Your task to perform on an android device: toggle show notifications on the lock screen Image 0: 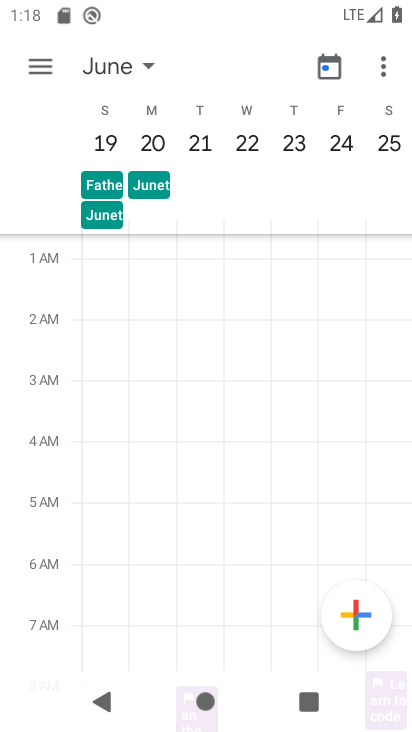
Step 0: press home button
Your task to perform on an android device: toggle show notifications on the lock screen Image 1: 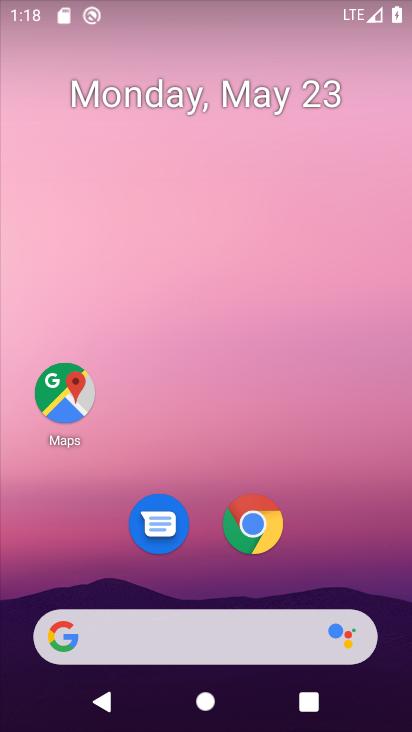
Step 1: drag from (290, 441) to (246, 8)
Your task to perform on an android device: toggle show notifications on the lock screen Image 2: 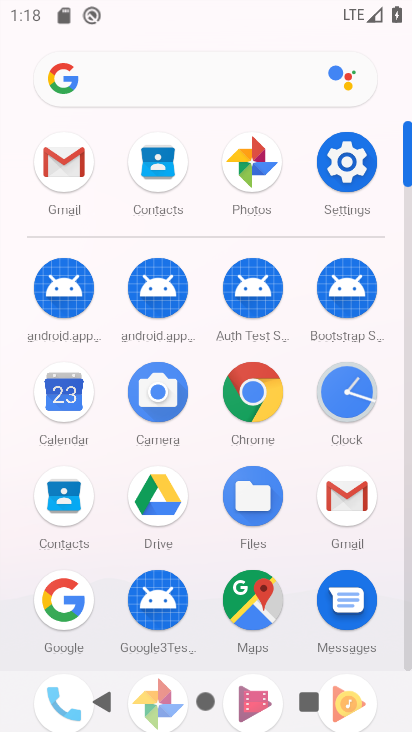
Step 2: click (323, 162)
Your task to perform on an android device: toggle show notifications on the lock screen Image 3: 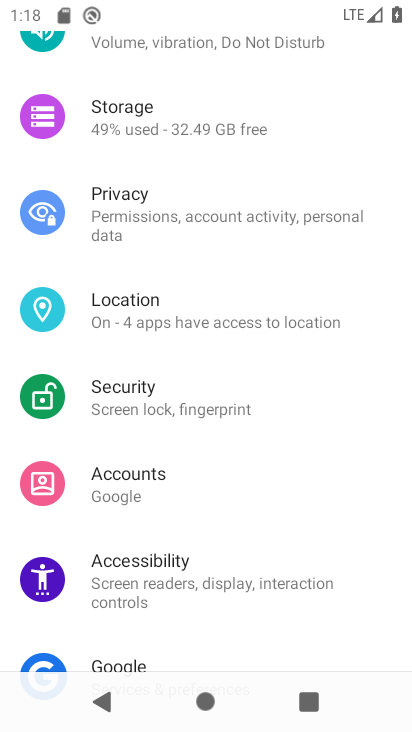
Step 3: drag from (210, 155) to (198, 584)
Your task to perform on an android device: toggle show notifications on the lock screen Image 4: 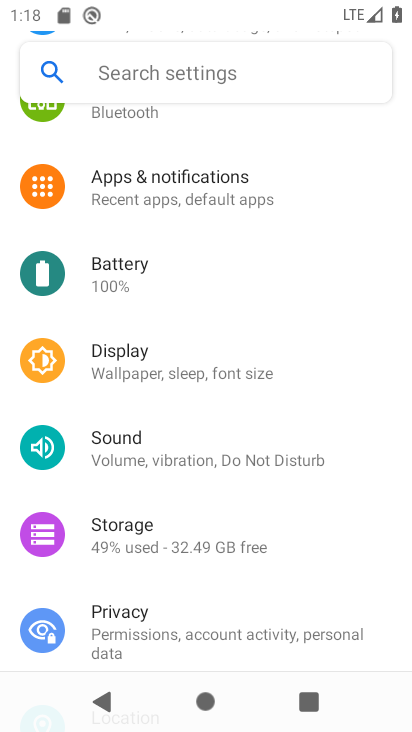
Step 4: click (239, 186)
Your task to perform on an android device: toggle show notifications on the lock screen Image 5: 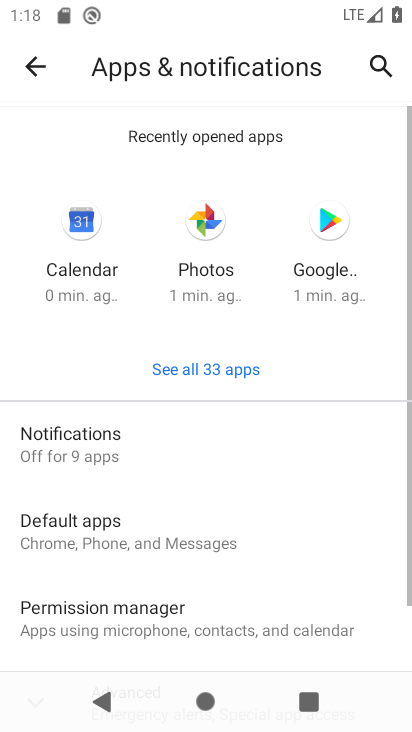
Step 5: drag from (238, 484) to (210, 310)
Your task to perform on an android device: toggle show notifications on the lock screen Image 6: 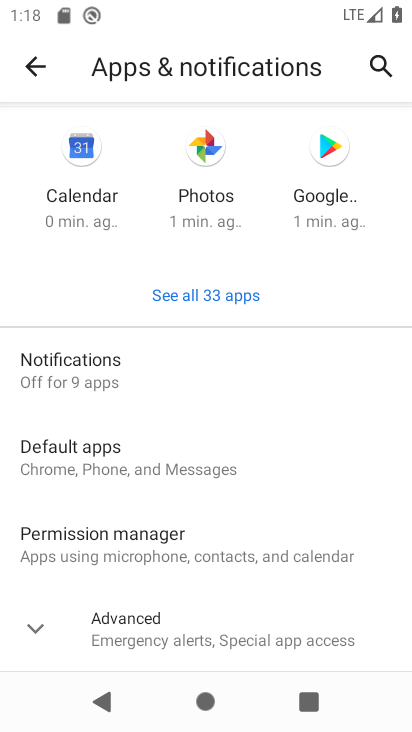
Step 6: click (205, 356)
Your task to perform on an android device: toggle show notifications on the lock screen Image 7: 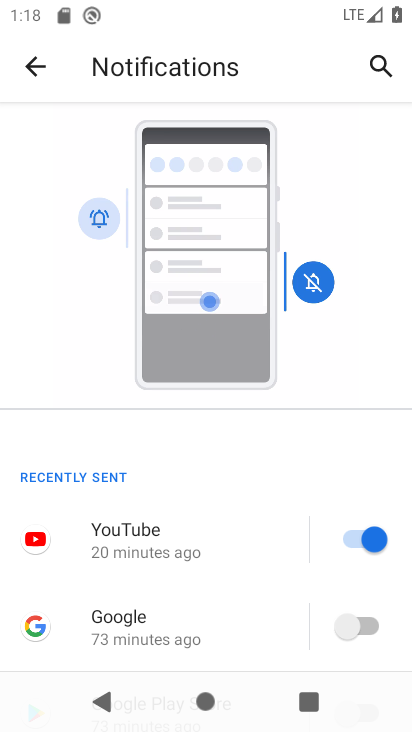
Step 7: drag from (225, 481) to (277, 5)
Your task to perform on an android device: toggle show notifications on the lock screen Image 8: 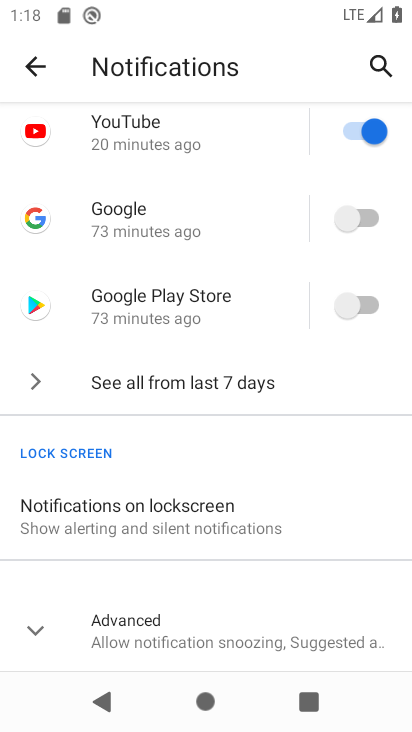
Step 8: click (184, 513)
Your task to perform on an android device: toggle show notifications on the lock screen Image 9: 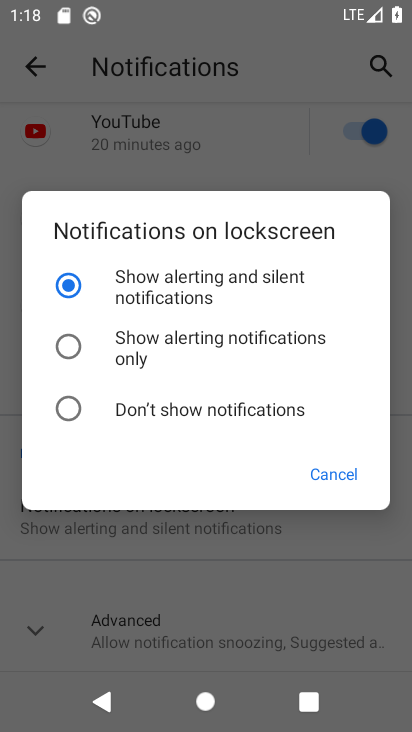
Step 9: click (59, 396)
Your task to perform on an android device: toggle show notifications on the lock screen Image 10: 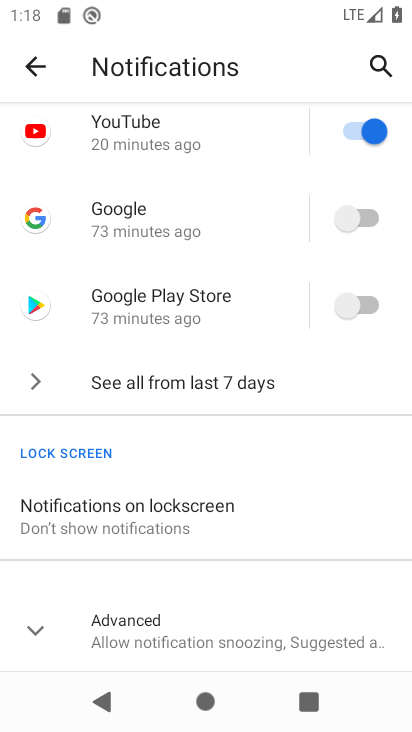
Step 10: task complete